Your task to perform on an android device: change the clock display to analog Image 0: 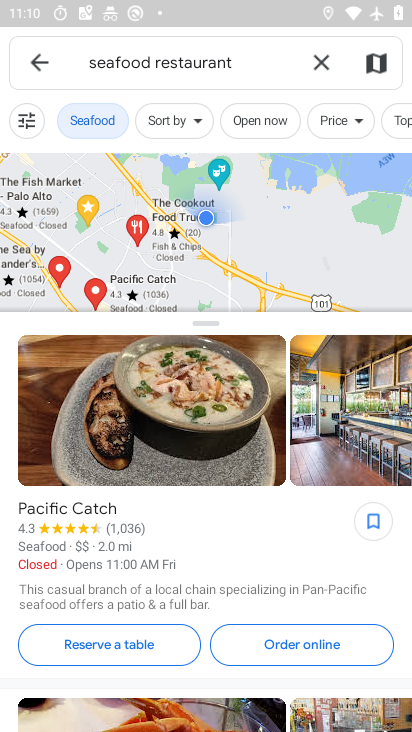
Step 0: press back button
Your task to perform on an android device: change the clock display to analog Image 1: 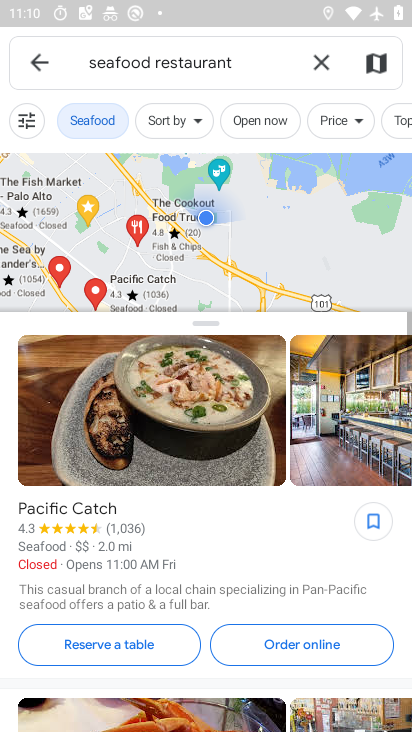
Step 1: press back button
Your task to perform on an android device: change the clock display to analog Image 2: 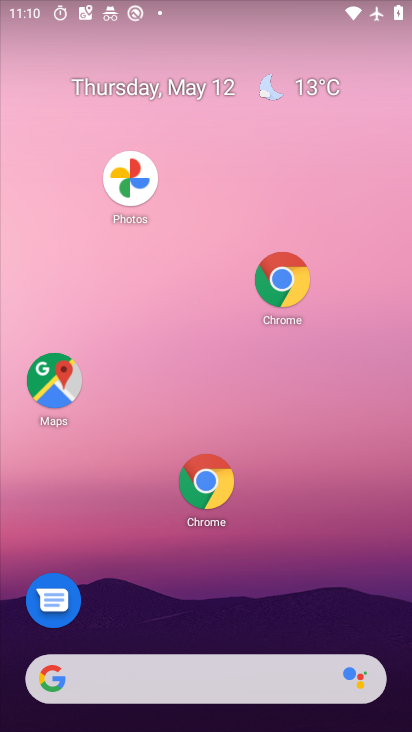
Step 2: drag from (259, 484) to (128, 97)
Your task to perform on an android device: change the clock display to analog Image 3: 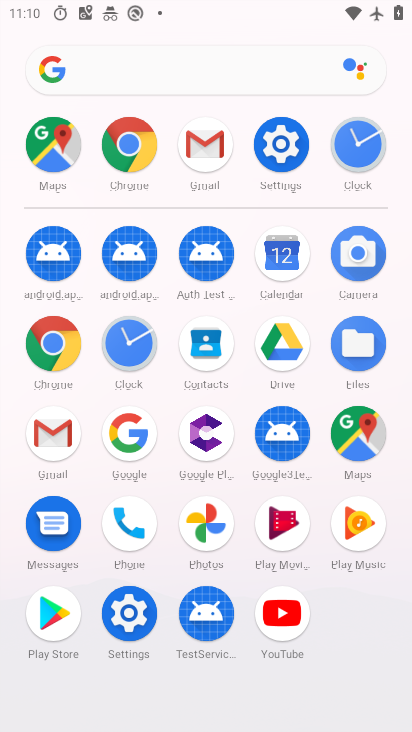
Step 3: click (132, 334)
Your task to perform on an android device: change the clock display to analog Image 4: 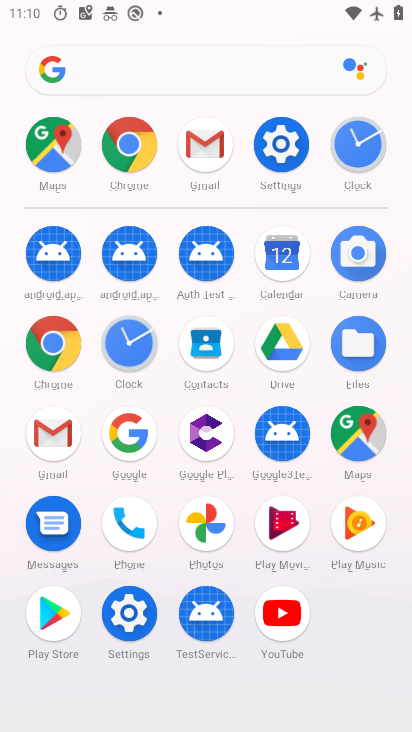
Step 4: click (130, 336)
Your task to perform on an android device: change the clock display to analog Image 5: 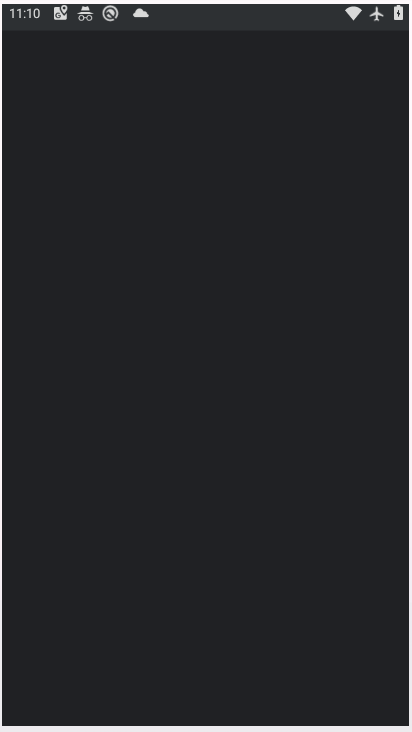
Step 5: click (130, 336)
Your task to perform on an android device: change the clock display to analog Image 6: 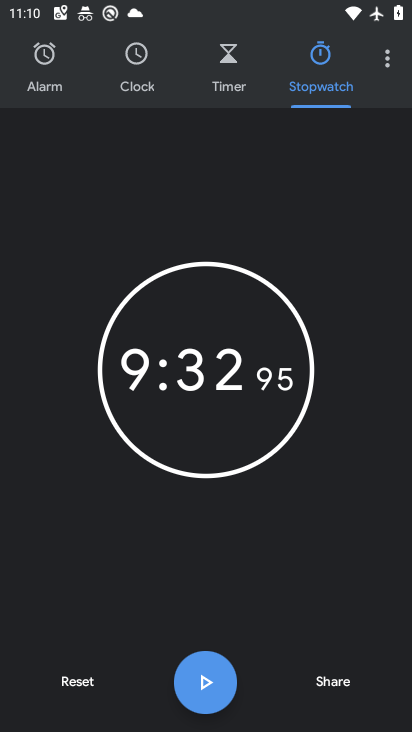
Step 6: click (129, 344)
Your task to perform on an android device: change the clock display to analog Image 7: 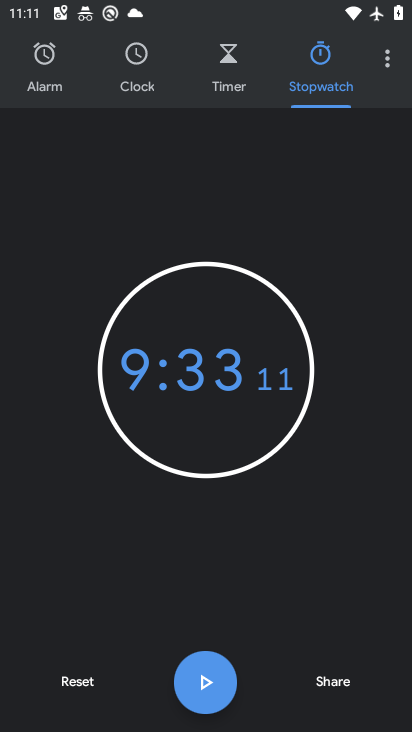
Step 7: click (389, 73)
Your task to perform on an android device: change the clock display to analog Image 8: 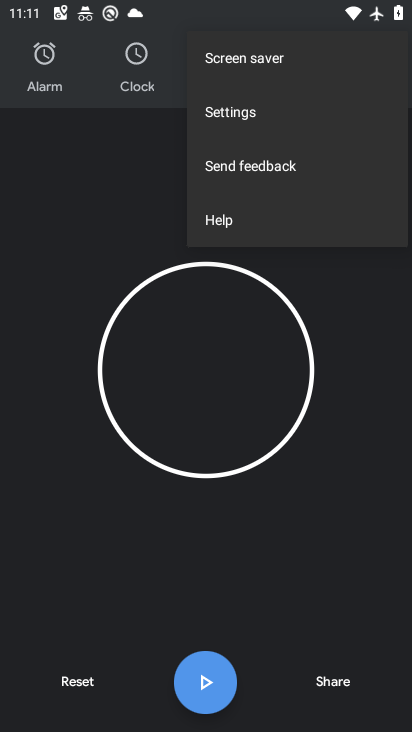
Step 8: click (209, 113)
Your task to perform on an android device: change the clock display to analog Image 9: 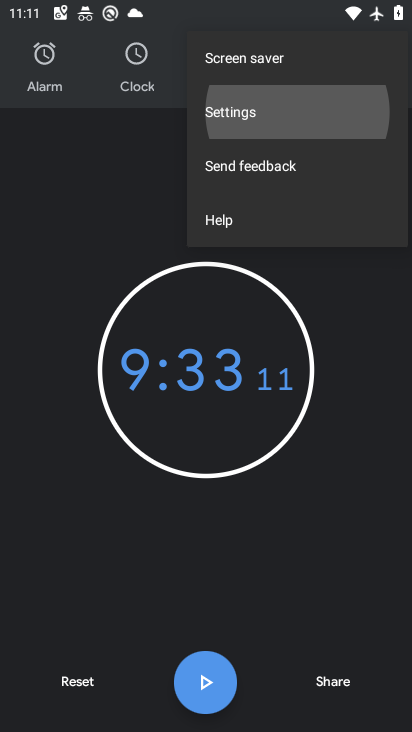
Step 9: click (209, 112)
Your task to perform on an android device: change the clock display to analog Image 10: 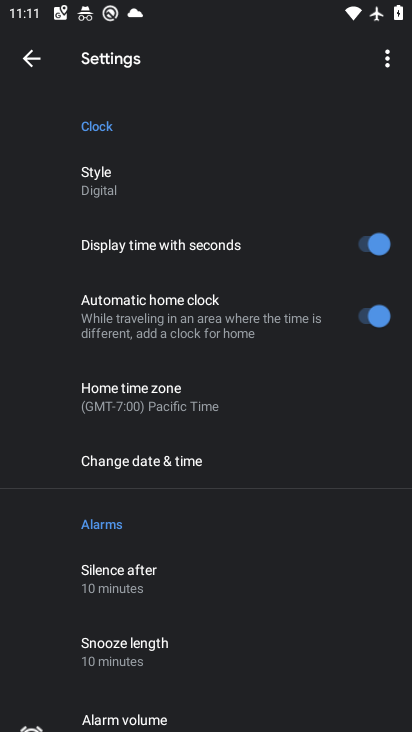
Step 10: click (150, 188)
Your task to perform on an android device: change the clock display to analog Image 11: 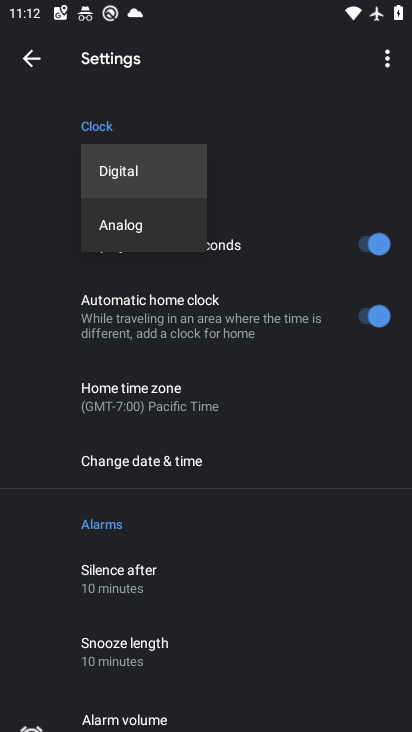
Step 11: click (131, 233)
Your task to perform on an android device: change the clock display to analog Image 12: 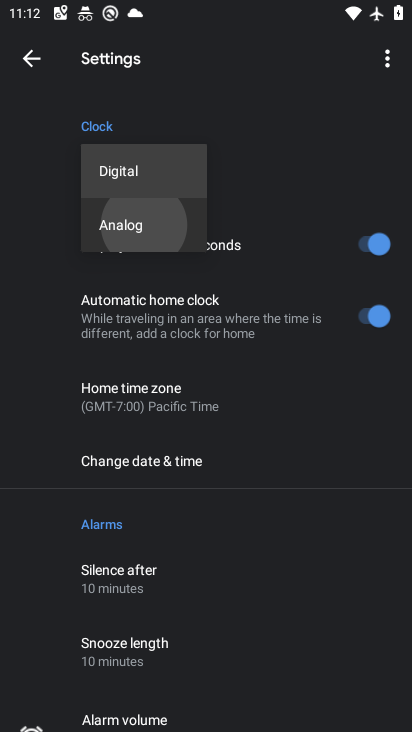
Step 12: click (131, 233)
Your task to perform on an android device: change the clock display to analog Image 13: 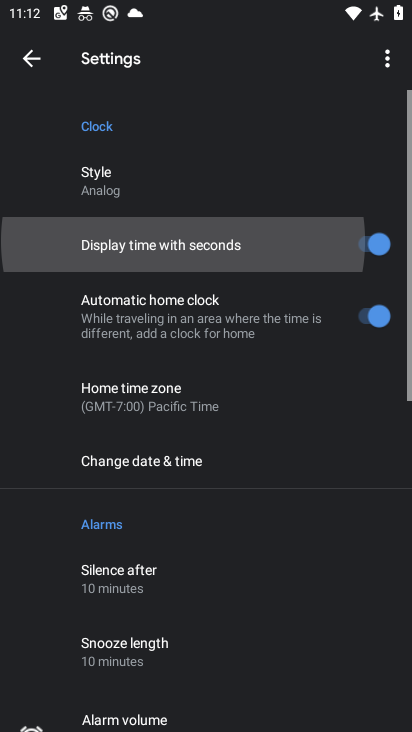
Step 13: click (131, 233)
Your task to perform on an android device: change the clock display to analog Image 14: 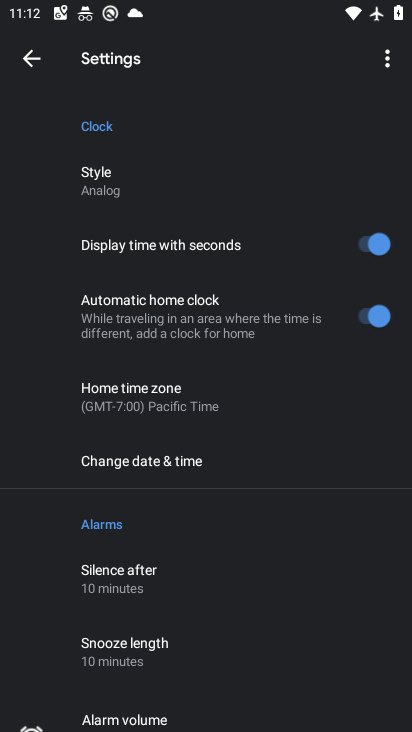
Step 14: task complete